Your task to perform on an android device: turn on data saver in the chrome app Image 0: 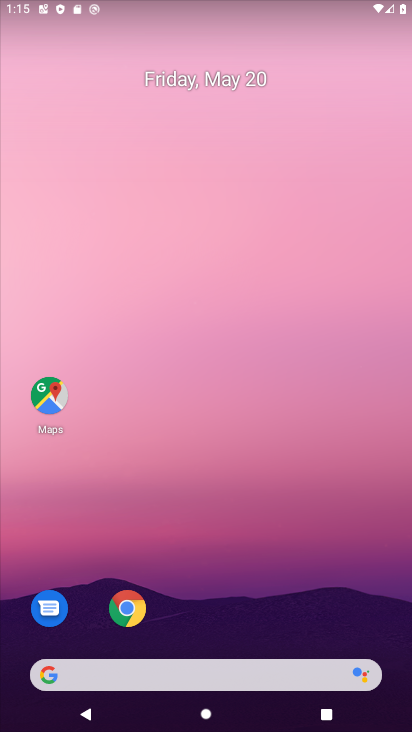
Step 0: click (140, 611)
Your task to perform on an android device: turn on data saver in the chrome app Image 1: 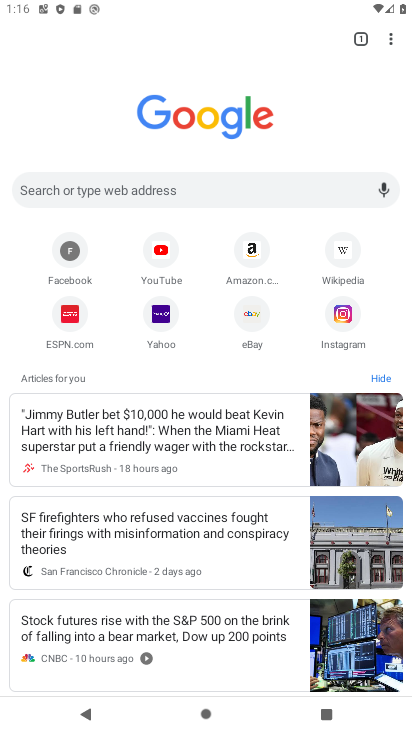
Step 1: drag from (390, 36) to (271, 328)
Your task to perform on an android device: turn on data saver in the chrome app Image 2: 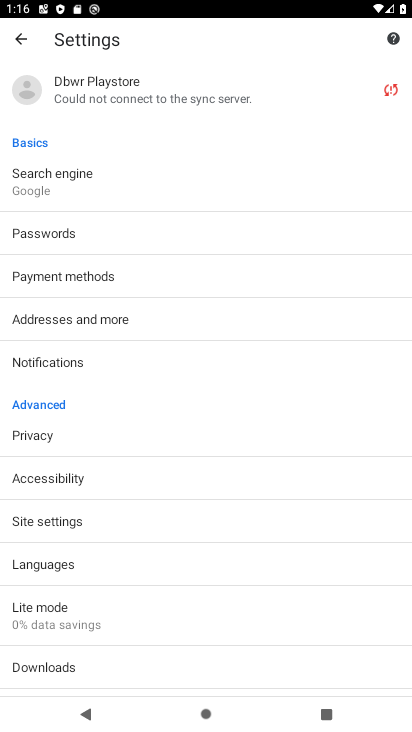
Step 2: click (72, 526)
Your task to perform on an android device: turn on data saver in the chrome app Image 3: 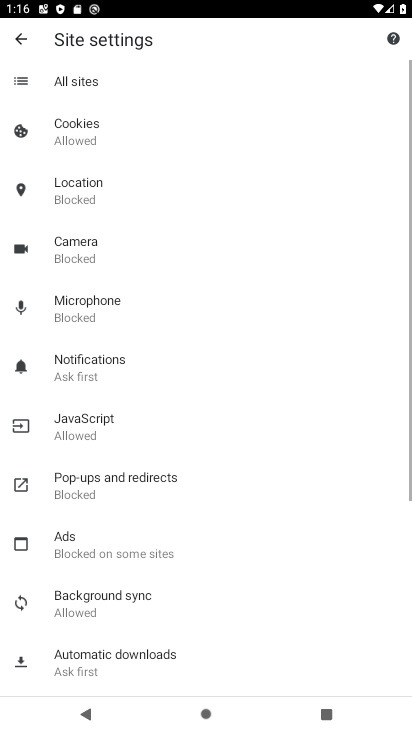
Step 3: click (11, 29)
Your task to perform on an android device: turn on data saver in the chrome app Image 4: 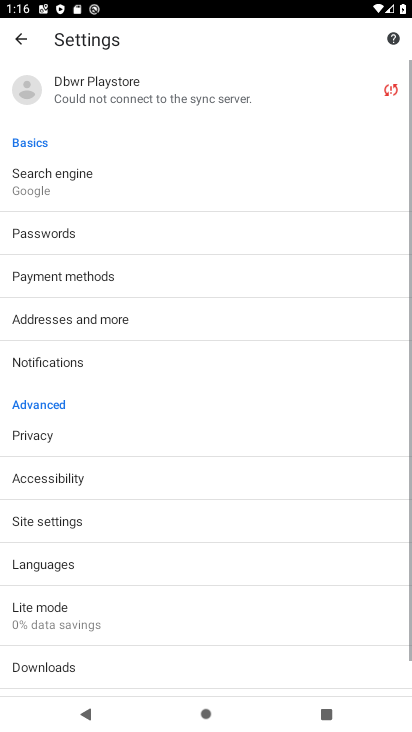
Step 4: click (93, 623)
Your task to perform on an android device: turn on data saver in the chrome app Image 5: 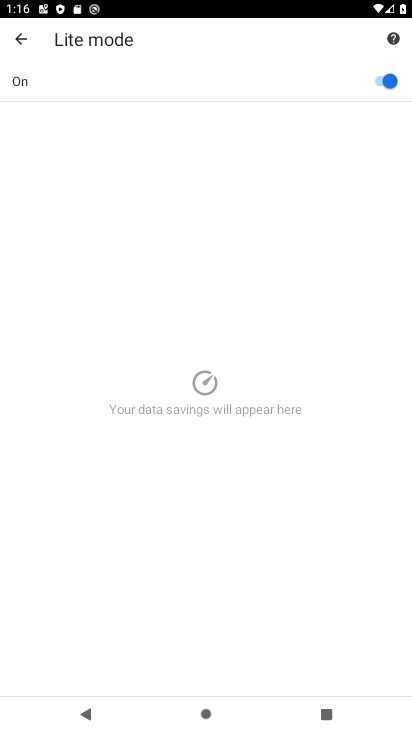
Step 5: task complete